Your task to perform on an android device: turn on location history Image 0: 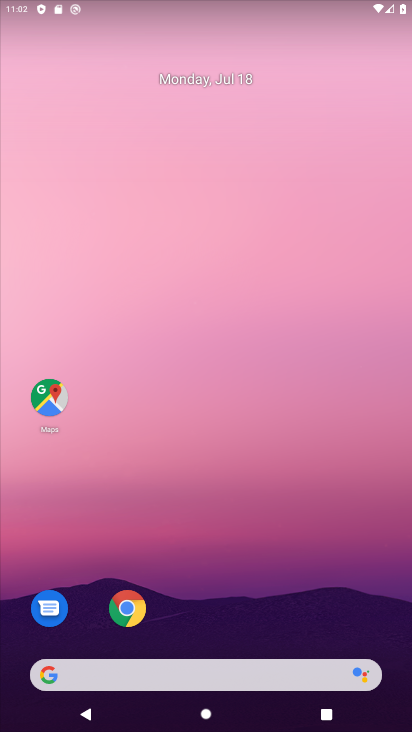
Step 0: click (47, 388)
Your task to perform on an android device: turn on location history Image 1: 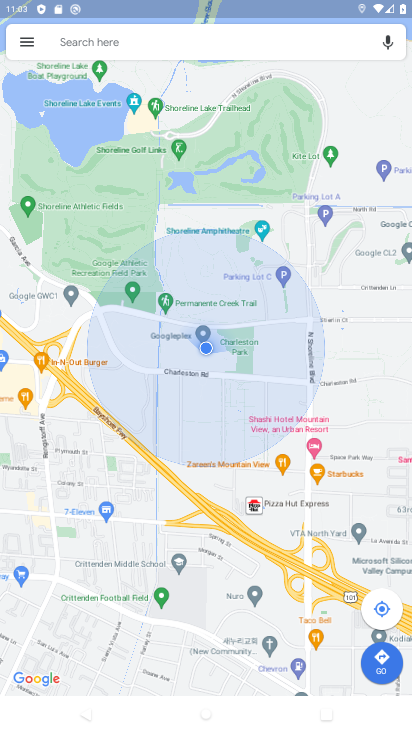
Step 1: click (23, 44)
Your task to perform on an android device: turn on location history Image 2: 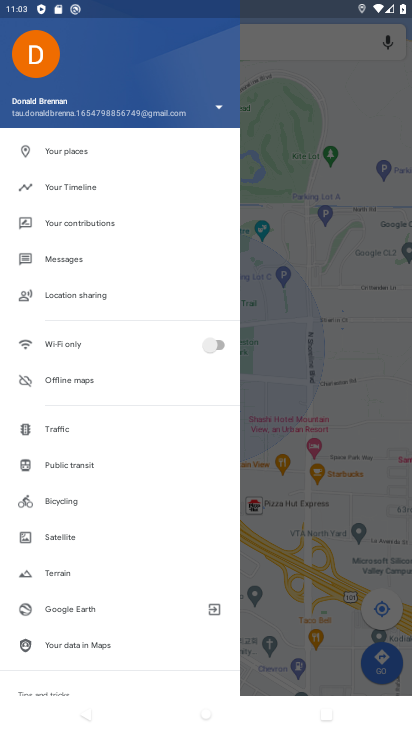
Step 2: click (100, 188)
Your task to perform on an android device: turn on location history Image 3: 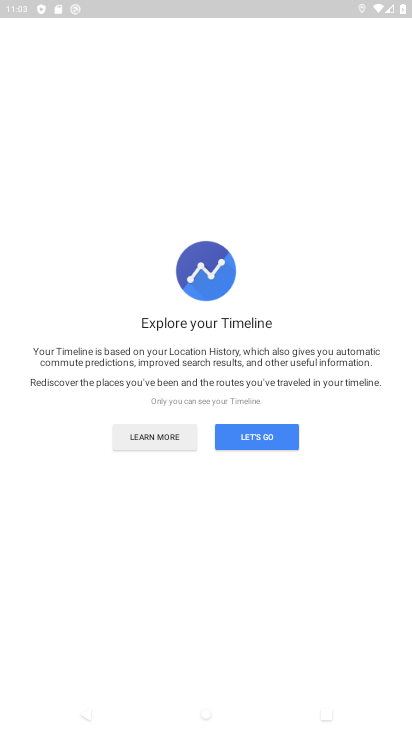
Step 3: click (274, 463)
Your task to perform on an android device: turn on location history Image 4: 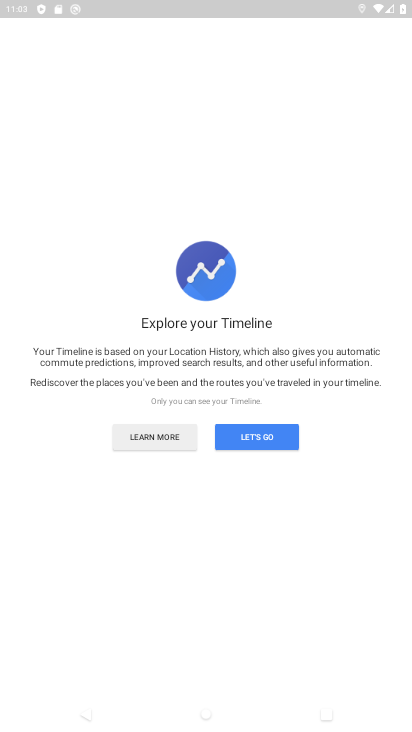
Step 4: click (270, 427)
Your task to perform on an android device: turn on location history Image 5: 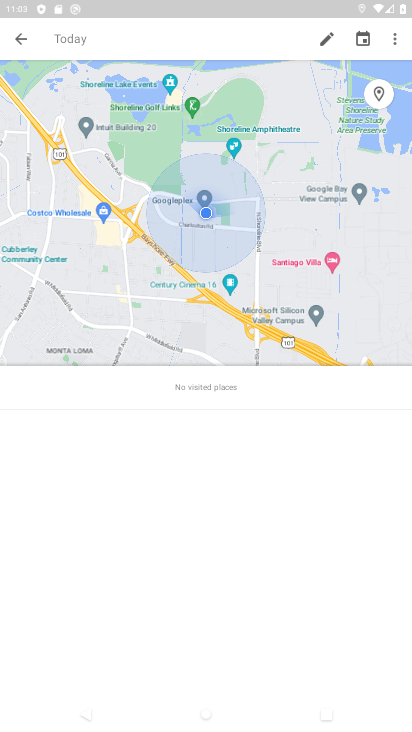
Step 5: click (394, 36)
Your task to perform on an android device: turn on location history Image 6: 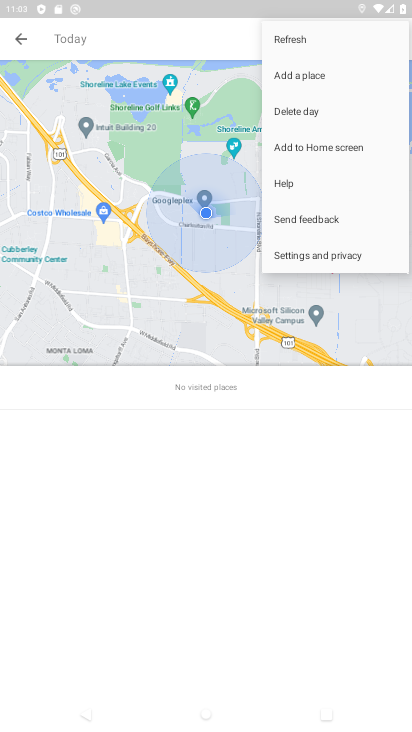
Step 6: click (342, 250)
Your task to perform on an android device: turn on location history Image 7: 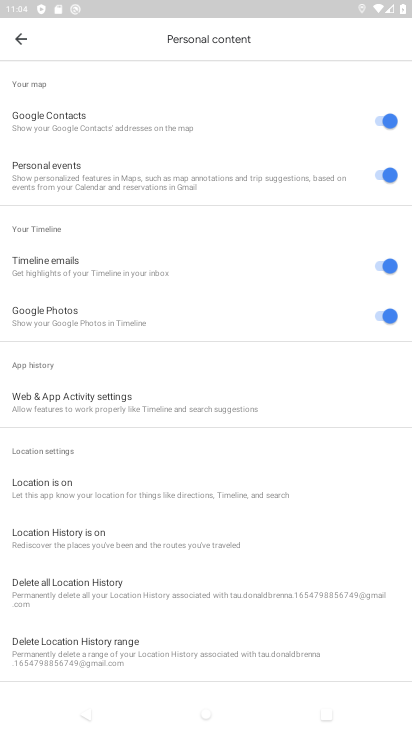
Step 7: click (258, 546)
Your task to perform on an android device: turn on location history Image 8: 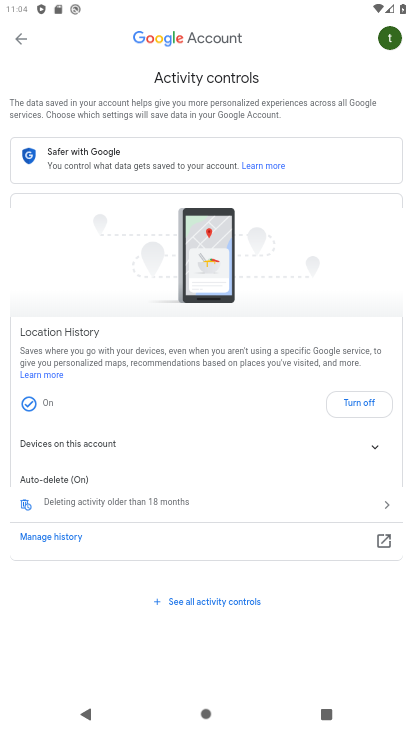
Step 8: task complete